Your task to perform on an android device: Search for "macbook pro 15 inch" on target.com, select the first entry, and add it to the cart. Image 0: 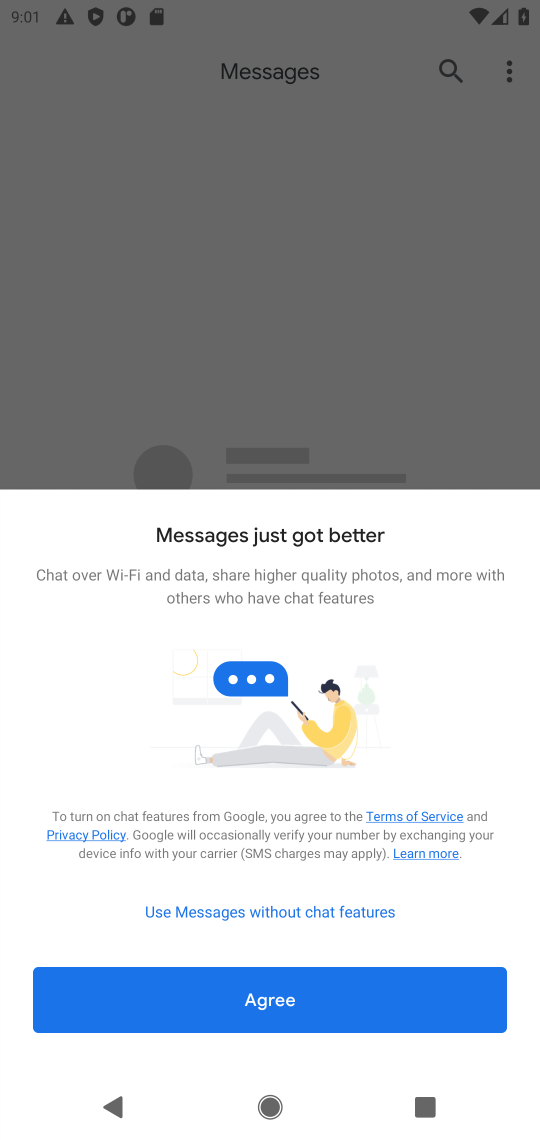
Step 0: press home button
Your task to perform on an android device: Search for "macbook pro 15 inch" on target.com, select the first entry, and add it to the cart. Image 1: 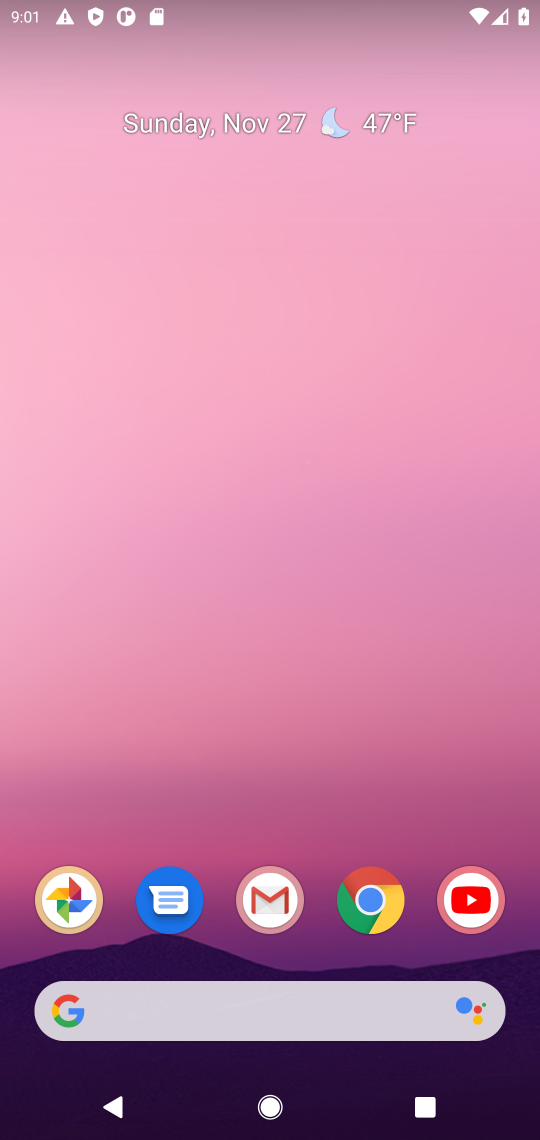
Step 1: click (376, 897)
Your task to perform on an android device: Search for "macbook pro 15 inch" on target.com, select the first entry, and add it to the cart. Image 2: 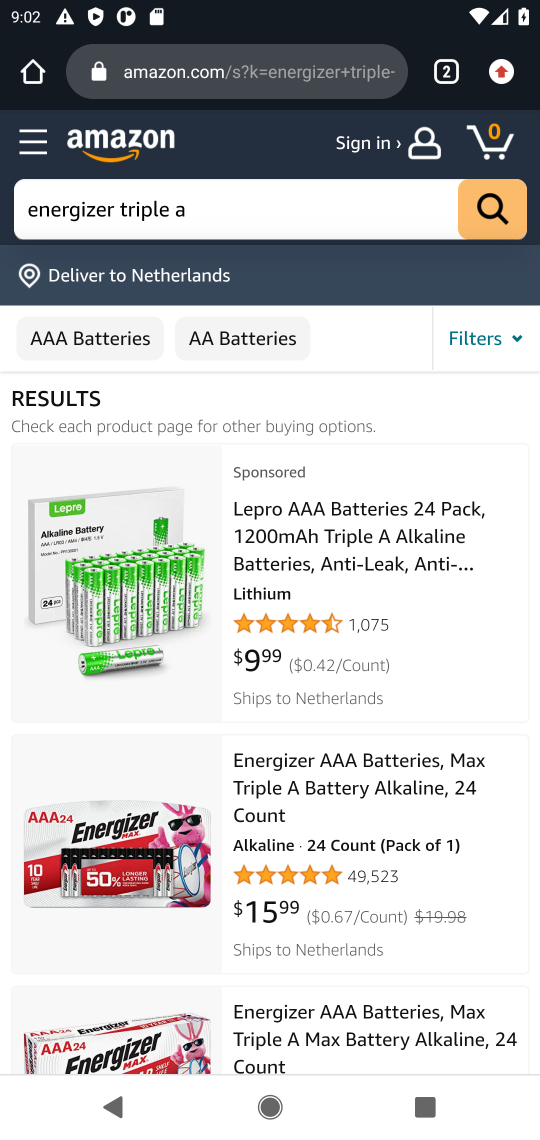
Step 2: click (191, 78)
Your task to perform on an android device: Search for "macbook pro 15 inch" on target.com, select the first entry, and add it to the cart. Image 3: 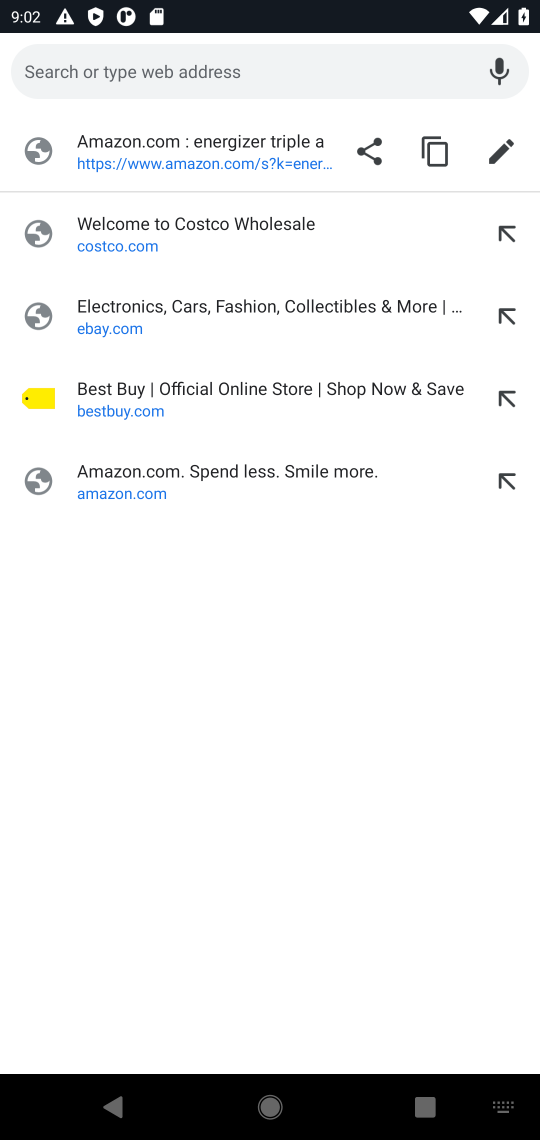
Step 3: type "target.com"
Your task to perform on an android device: Search for "macbook pro 15 inch" on target.com, select the first entry, and add it to the cart. Image 4: 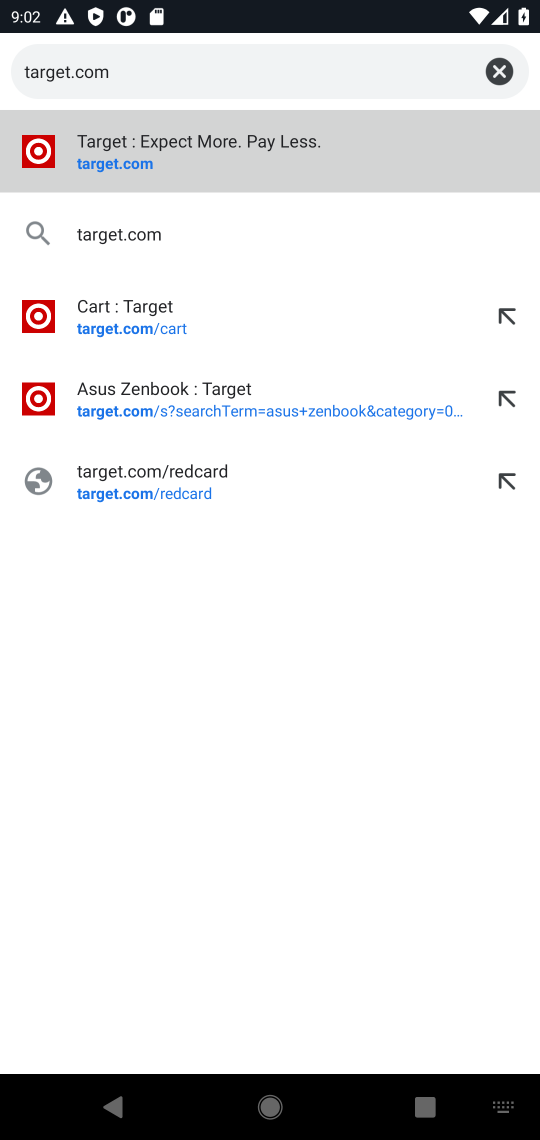
Step 4: click (110, 160)
Your task to perform on an android device: Search for "macbook pro 15 inch" on target.com, select the first entry, and add it to the cart. Image 5: 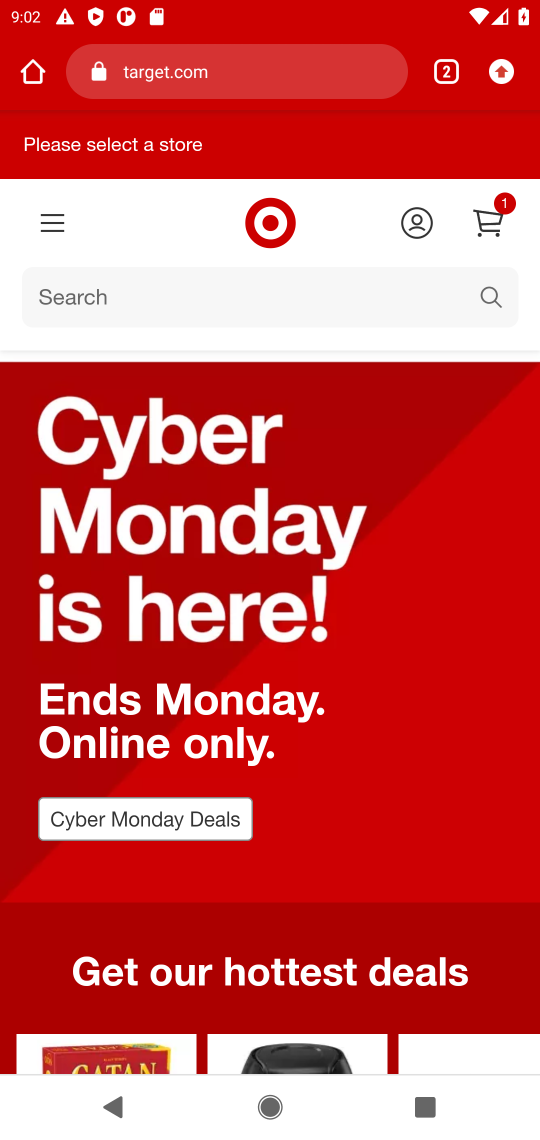
Step 5: click (494, 292)
Your task to perform on an android device: Search for "macbook pro 15 inch" on target.com, select the first entry, and add it to the cart. Image 6: 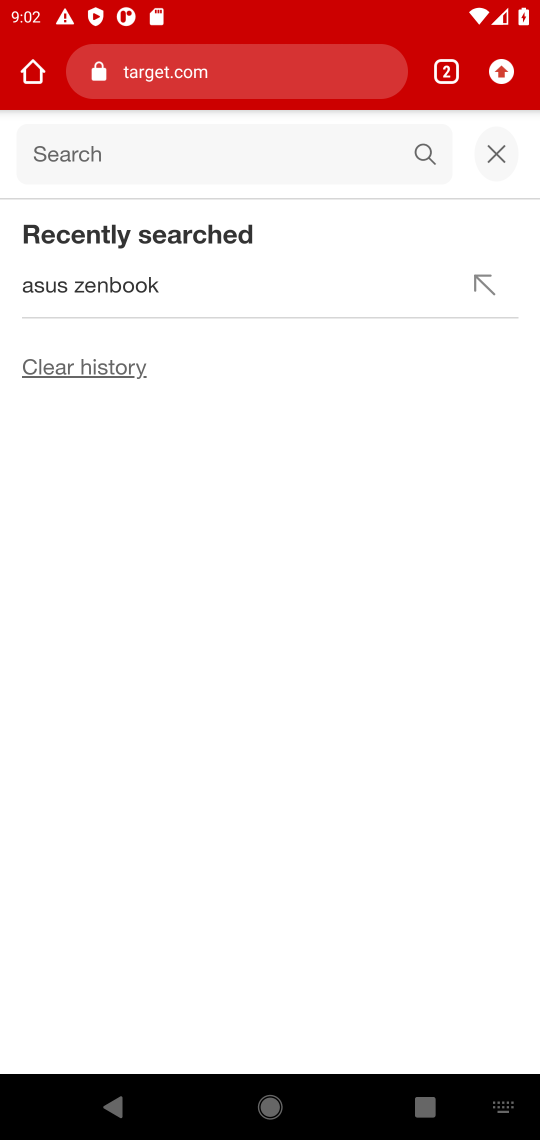
Step 6: type "macbook pro 15 inch"
Your task to perform on an android device: Search for "macbook pro 15 inch" on target.com, select the first entry, and add it to the cart. Image 7: 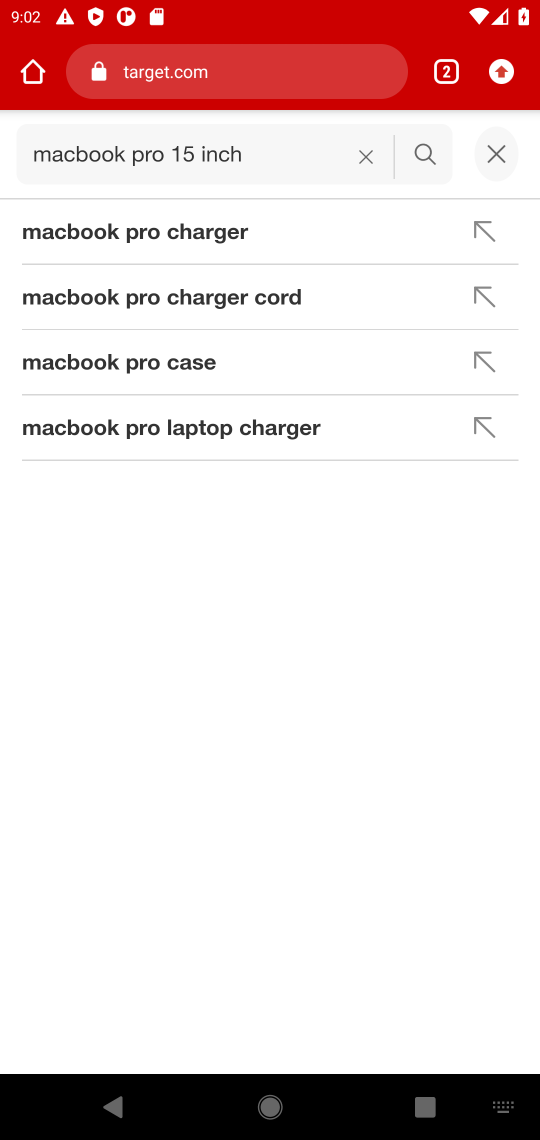
Step 7: click (419, 158)
Your task to perform on an android device: Search for "macbook pro 15 inch" on target.com, select the first entry, and add it to the cart. Image 8: 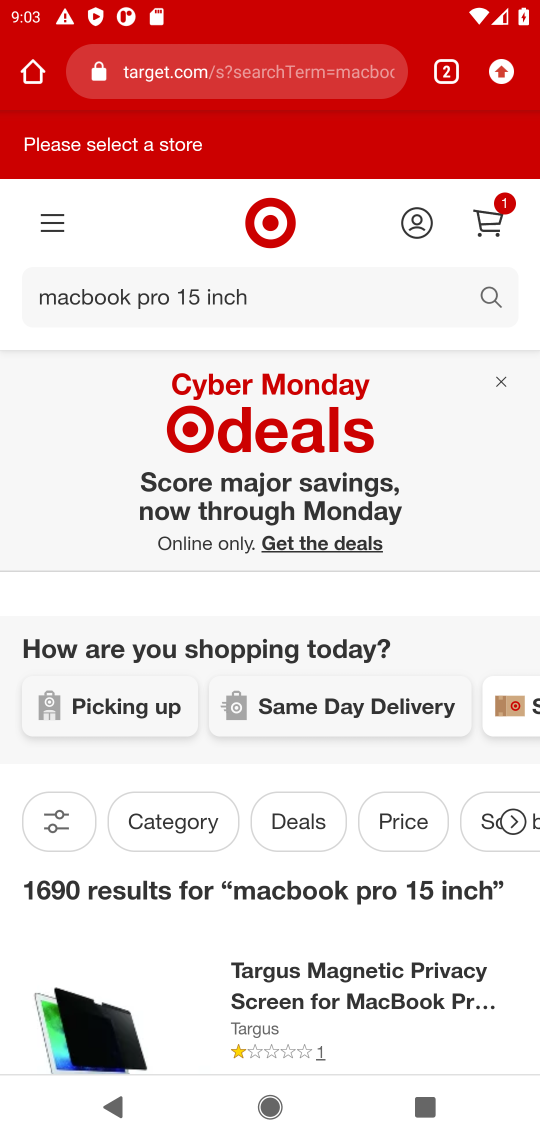
Step 8: drag from (265, 764) to (337, 400)
Your task to perform on an android device: Search for "macbook pro 15 inch" on target.com, select the first entry, and add it to the cart. Image 9: 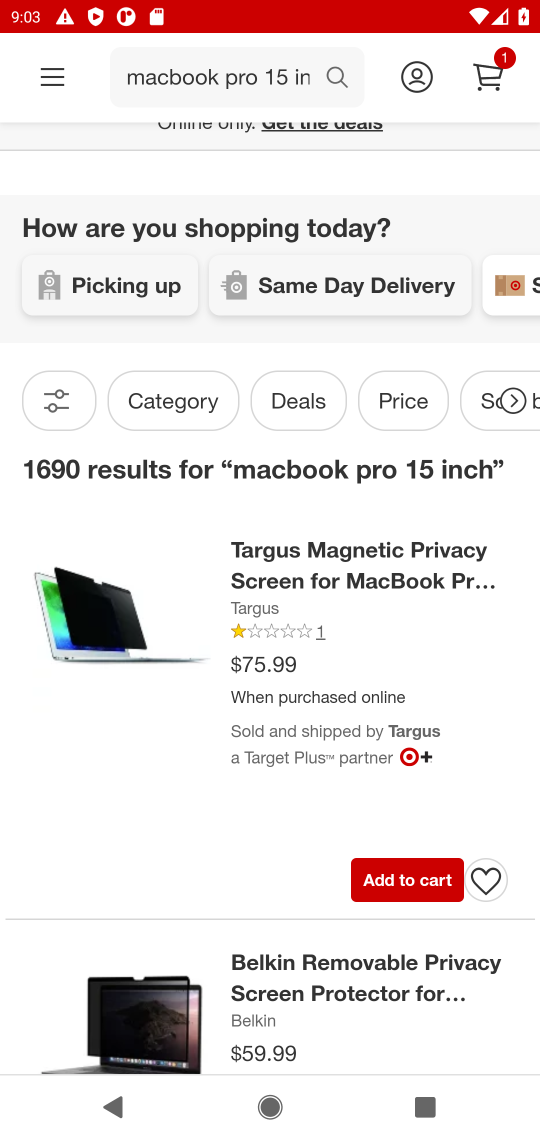
Step 9: click (342, 568)
Your task to perform on an android device: Search for "macbook pro 15 inch" on target.com, select the first entry, and add it to the cart. Image 10: 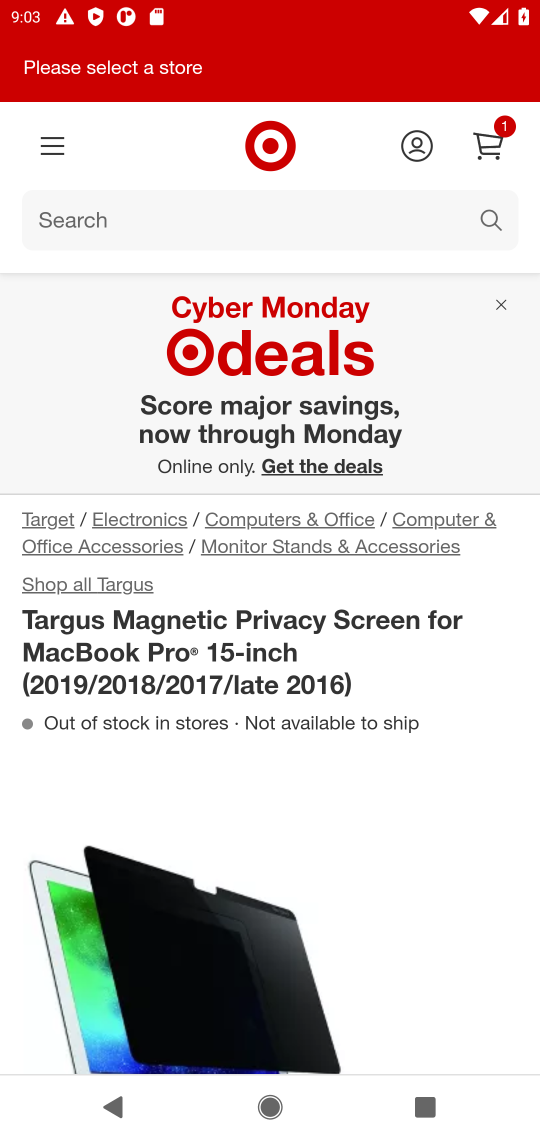
Step 10: drag from (280, 833) to (283, 276)
Your task to perform on an android device: Search for "macbook pro 15 inch" on target.com, select the first entry, and add it to the cart. Image 11: 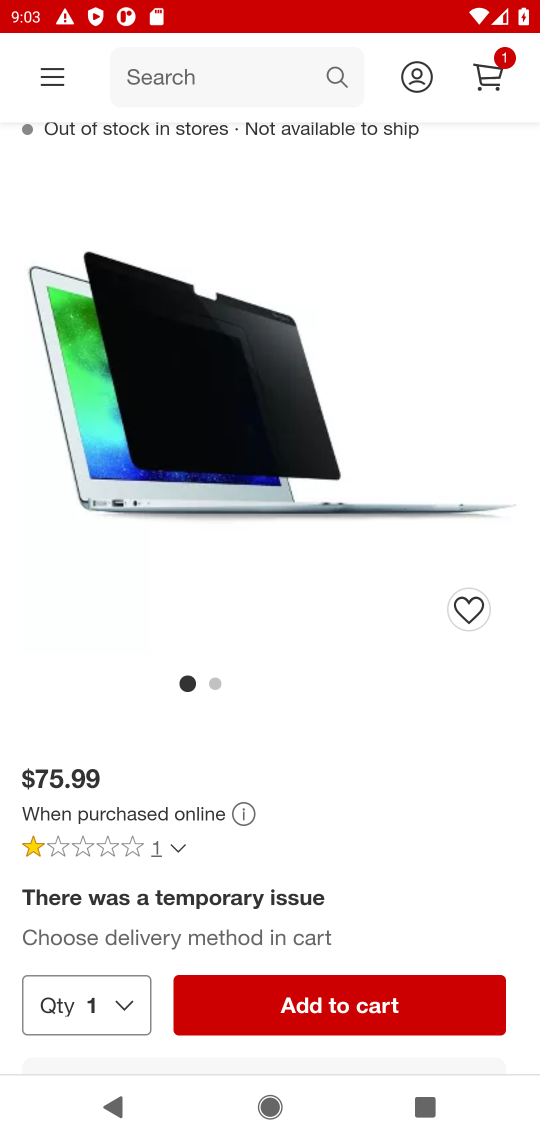
Step 11: click (305, 1031)
Your task to perform on an android device: Search for "macbook pro 15 inch" on target.com, select the first entry, and add it to the cart. Image 12: 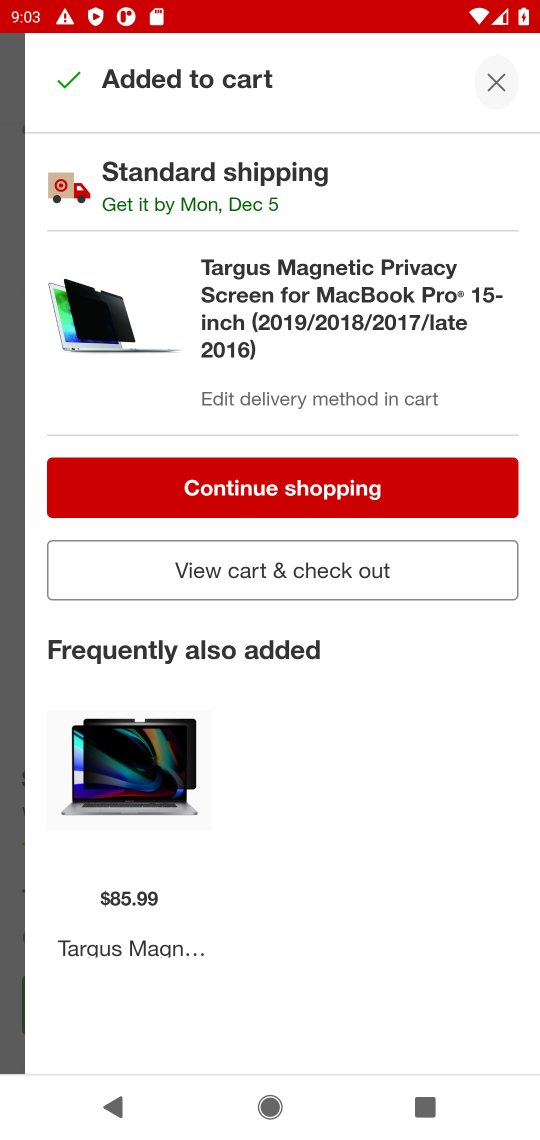
Step 12: click (285, 581)
Your task to perform on an android device: Search for "macbook pro 15 inch" on target.com, select the first entry, and add it to the cart. Image 13: 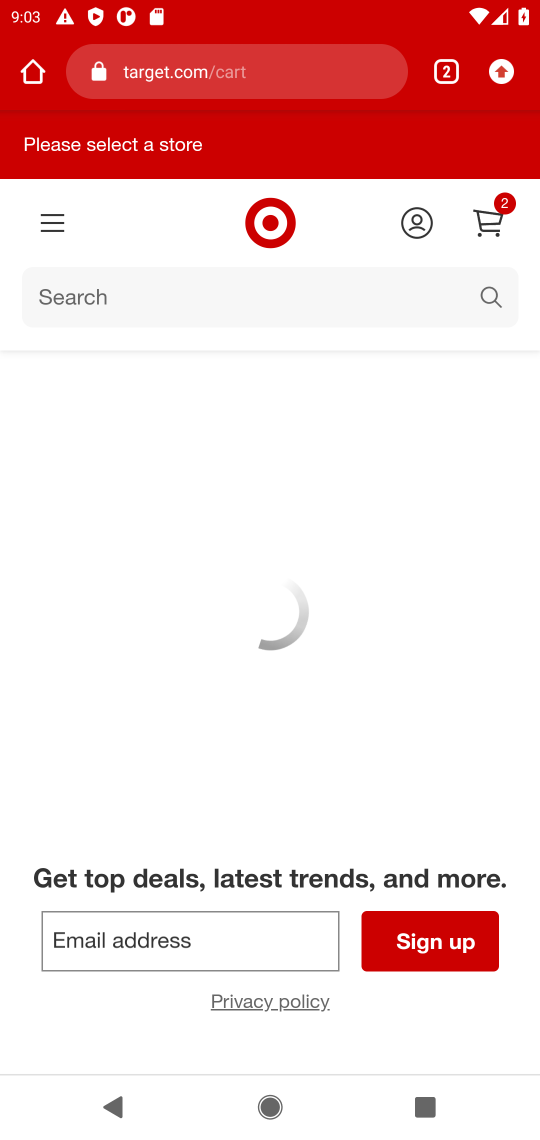
Step 13: task complete